Your task to perform on an android device: Go to ESPN.com Image 0: 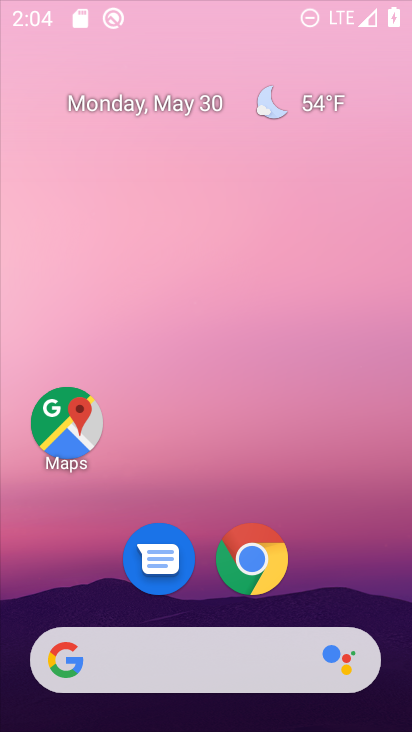
Step 0: click (360, 58)
Your task to perform on an android device: Go to ESPN.com Image 1: 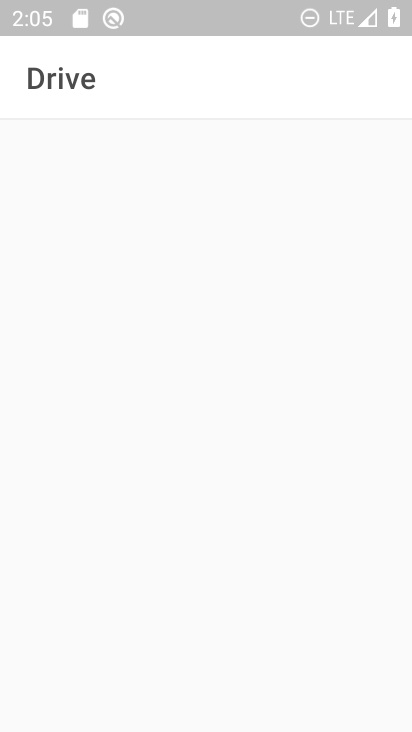
Step 1: press home button
Your task to perform on an android device: Go to ESPN.com Image 2: 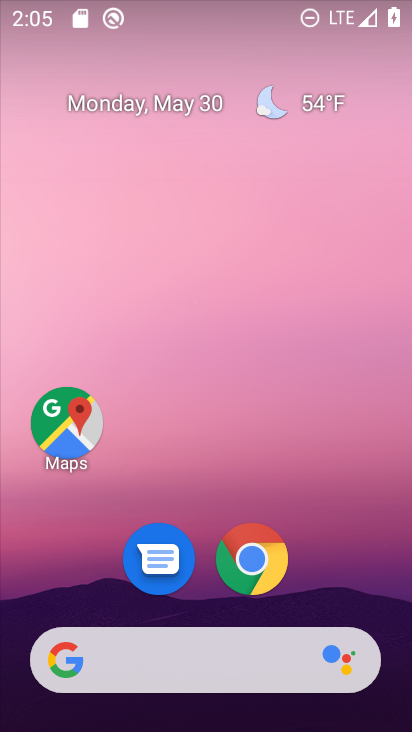
Step 2: click (247, 549)
Your task to perform on an android device: Go to ESPN.com Image 3: 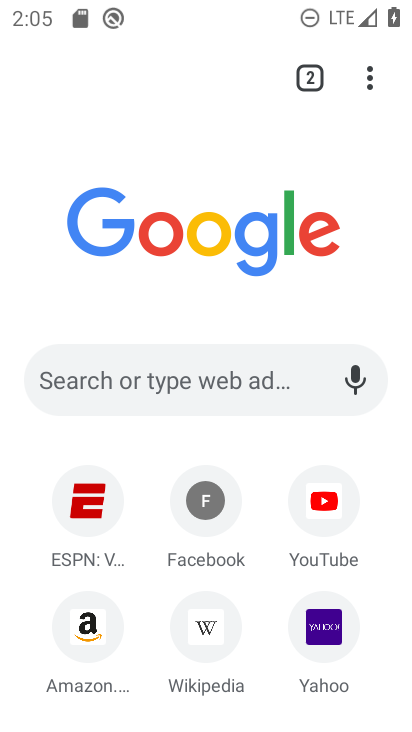
Step 3: click (73, 520)
Your task to perform on an android device: Go to ESPN.com Image 4: 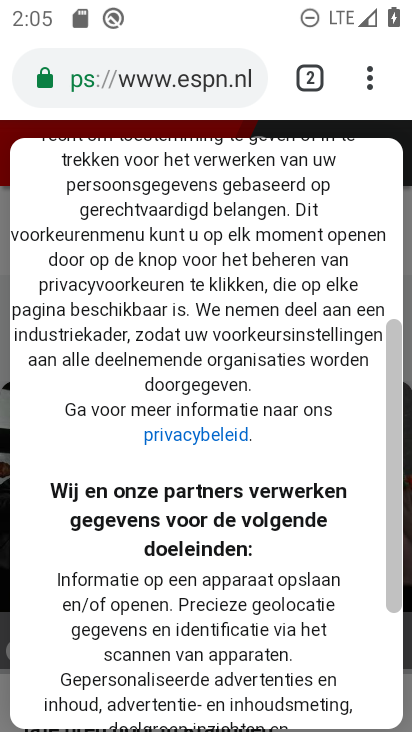
Step 4: task complete